Your task to perform on an android device: stop showing notifications on the lock screen Image 0: 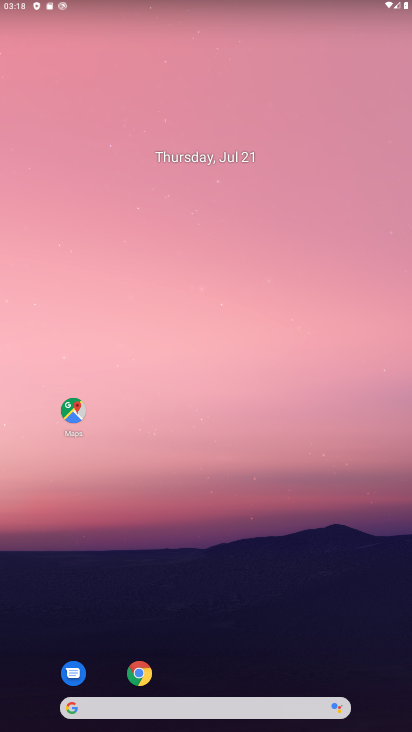
Step 0: drag from (292, 630) to (319, 44)
Your task to perform on an android device: stop showing notifications on the lock screen Image 1: 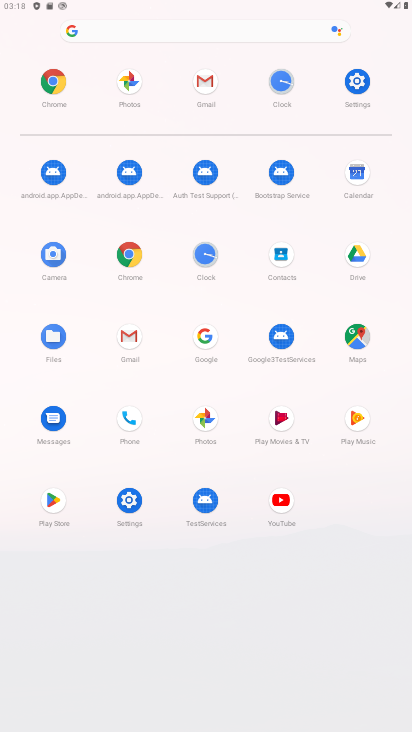
Step 1: click (357, 78)
Your task to perform on an android device: stop showing notifications on the lock screen Image 2: 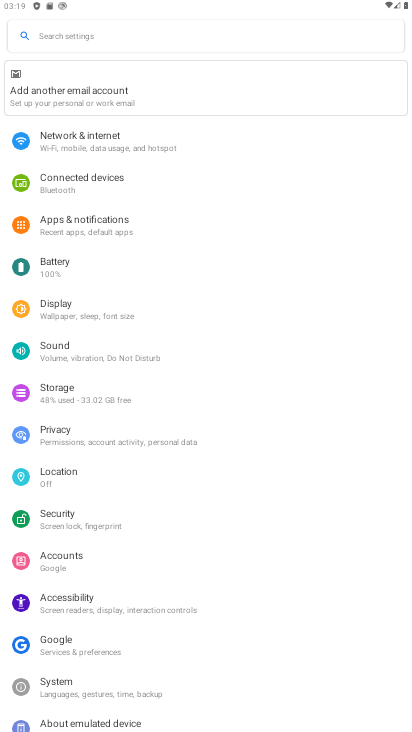
Step 2: click (92, 231)
Your task to perform on an android device: stop showing notifications on the lock screen Image 3: 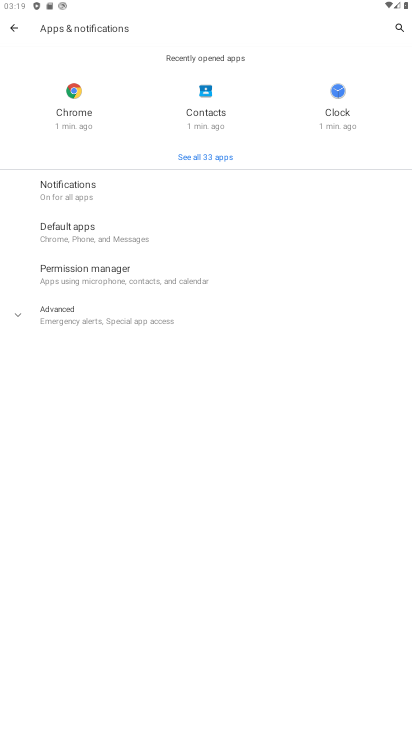
Step 3: click (72, 181)
Your task to perform on an android device: stop showing notifications on the lock screen Image 4: 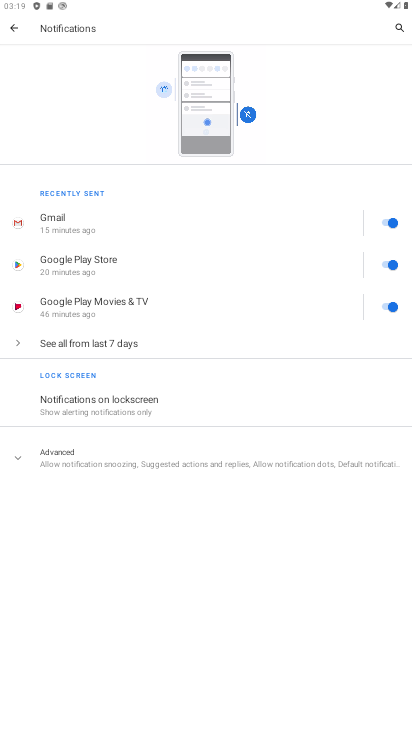
Step 4: click (153, 404)
Your task to perform on an android device: stop showing notifications on the lock screen Image 5: 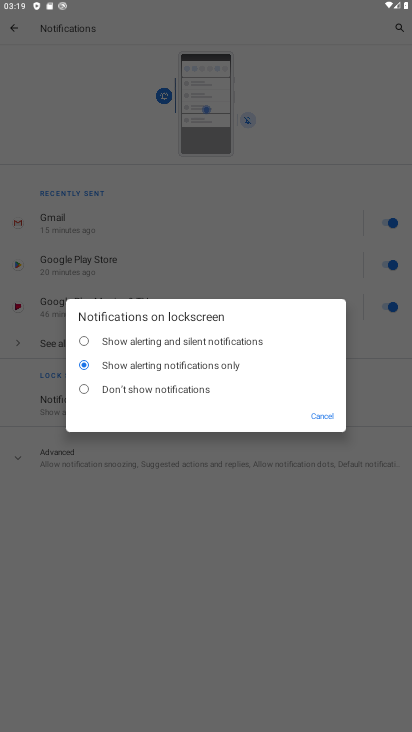
Step 5: click (198, 392)
Your task to perform on an android device: stop showing notifications on the lock screen Image 6: 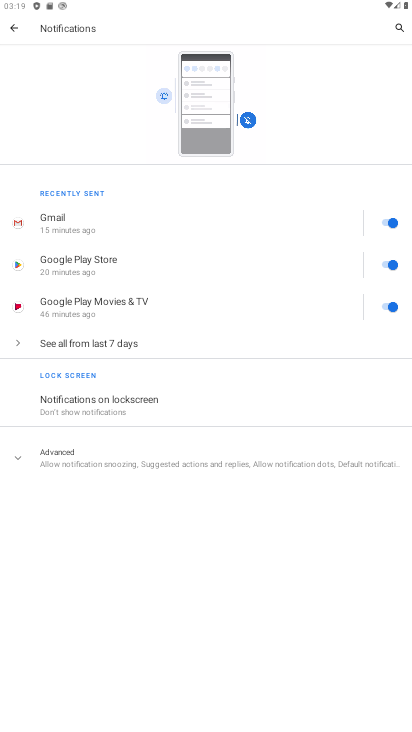
Step 6: task complete